Your task to perform on an android device: visit the assistant section in the google photos Image 0: 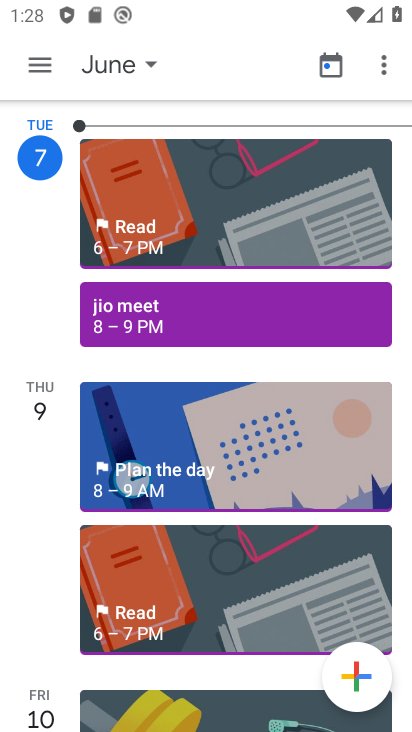
Step 0: press home button
Your task to perform on an android device: visit the assistant section in the google photos Image 1: 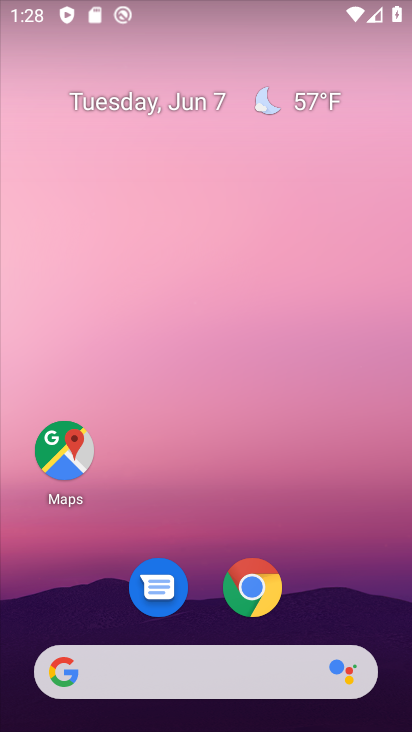
Step 1: drag from (92, 499) to (142, 98)
Your task to perform on an android device: visit the assistant section in the google photos Image 2: 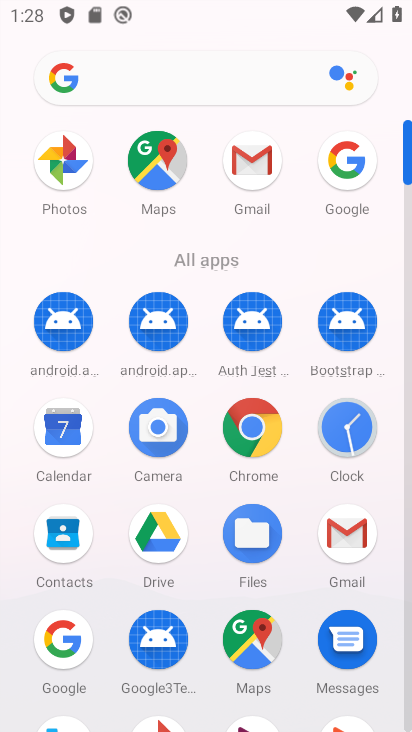
Step 2: drag from (177, 563) to (223, 251)
Your task to perform on an android device: visit the assistant section in the google photos Image 3: 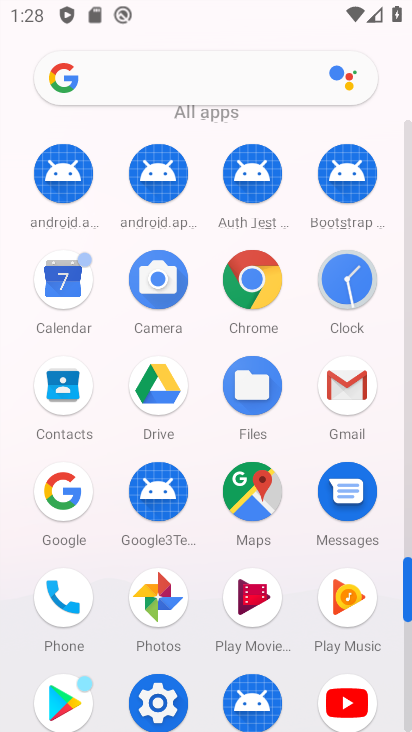
Step 3: drag from (179, 674) to (222, 410)
Your task to perform on an android device: visit the assistant section in the google photos Image 4: 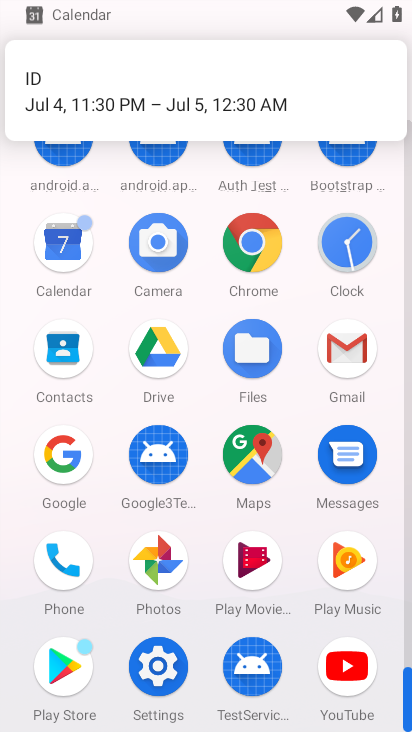
Step 4: click (151, 554)
Your task to perform on an android device: visit the assistant section in the google photos Image 5: 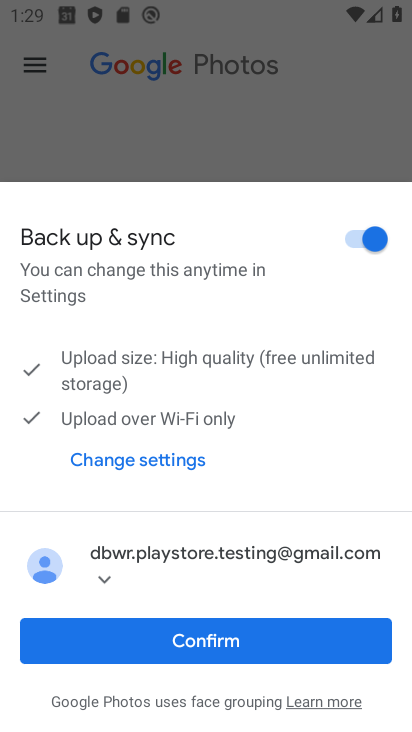
Step 5: click (247, 657)
Your task to perform on an android device: visit the assistant section in the google photos Image 6: 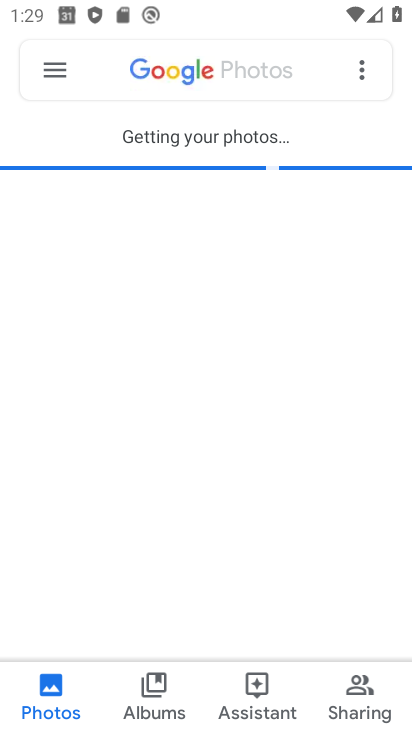
Step 6: click (262, 678)
Your task to perform on an android device: visit the assistant section in the google photos Image 7: 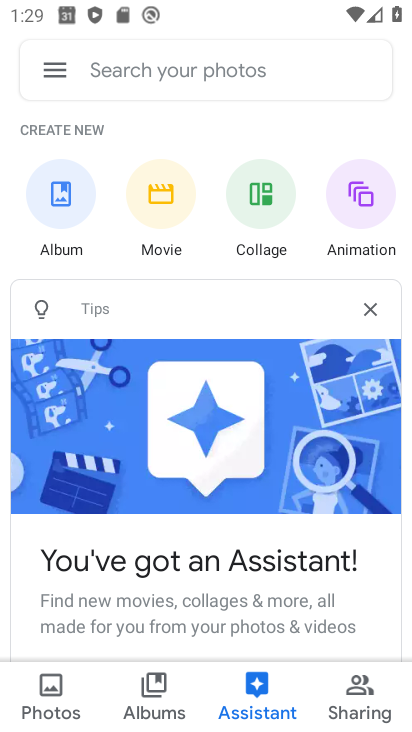
Step 7: task complete